Your task to perform on an android device: Turn on the flashlight Image 0: 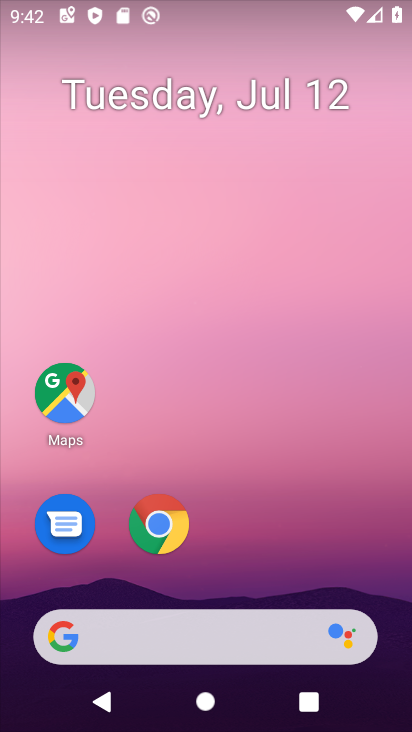
Step 0: drag from (271, 543) to (274, 10)
Your task to perform on an android device: Turn on the flashlight Image 1: 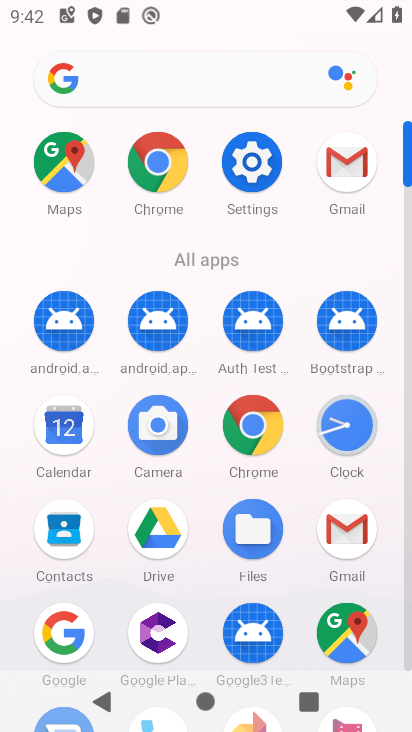
Step 1: click (250, 160)
Your task to perform on an android device: Turn on the flashlight Image 2: 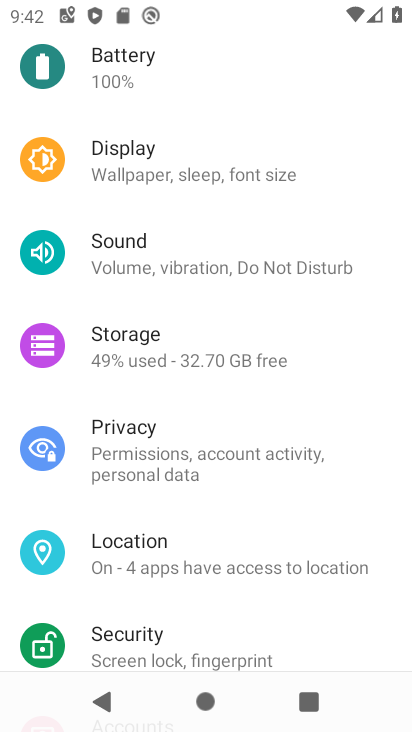
Step 2: drag from (238, 194) to (243, 603)
Your task to perform on an android device: Turn on the flashlight Image 3: 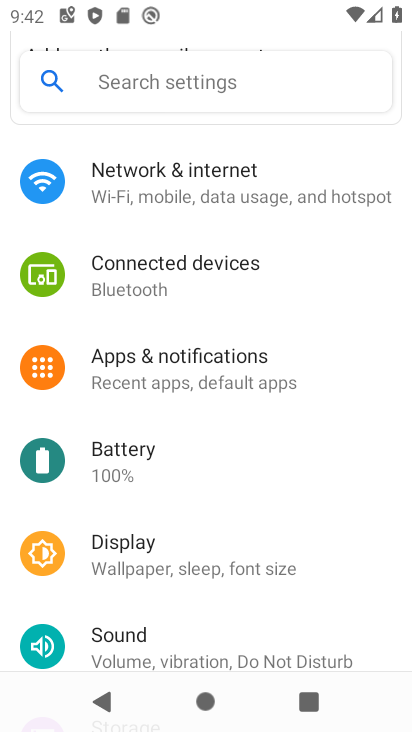
Step 3: drag from (215, 230) to (231, 593)
Your task to perform on an android device: Turn on the flashlight Image 4: 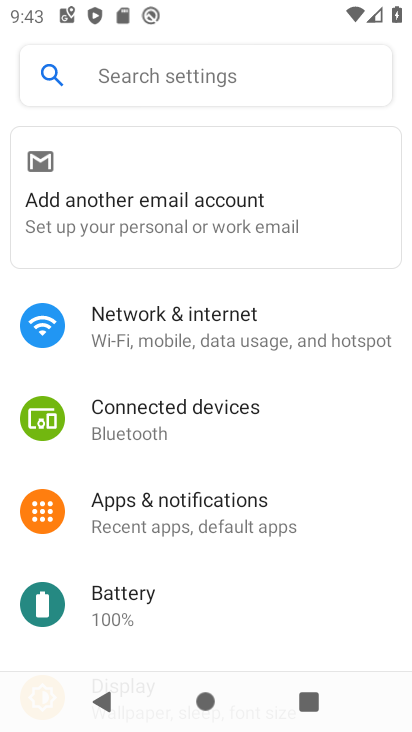
Step 4: click (273, 71)
Your task to perform on an android device: Turn on the flashlight Image 5: 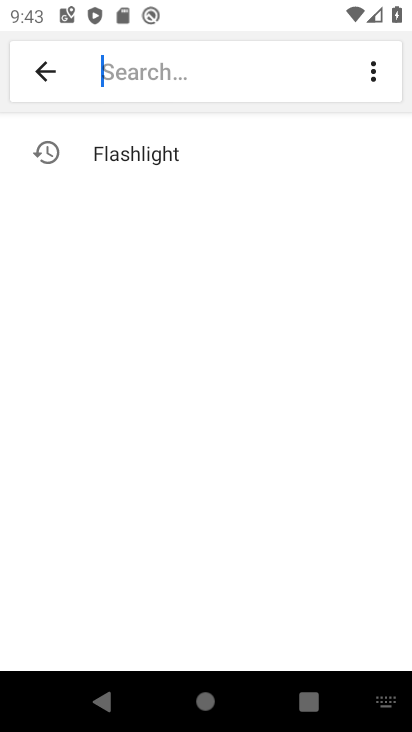
Step 5: click (165, 157)
Your task to perform on an android device: Turn on the flashlight Image 6: 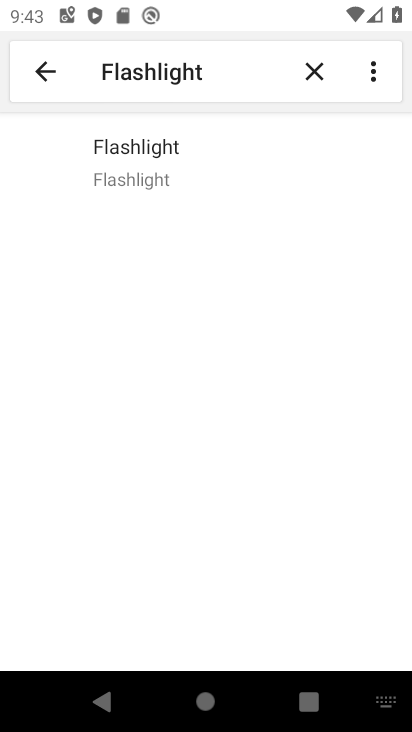
Step 6: click (165, 159)
Your task to perform on an android device: Turn on the flashlight Image 7: 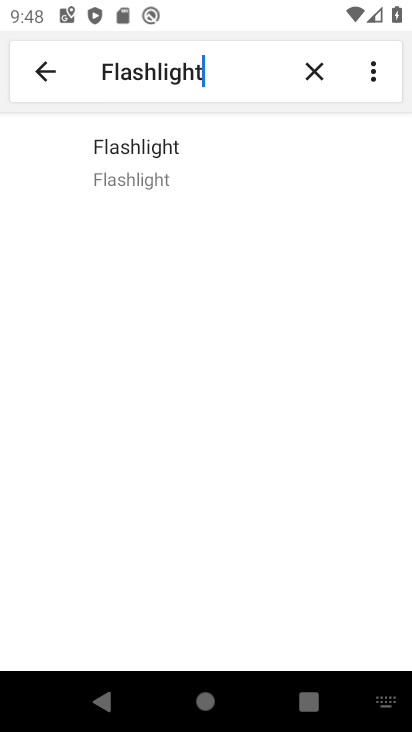
Step 7: task complete